Your task to perform on an android device: turn off location history Image 0: 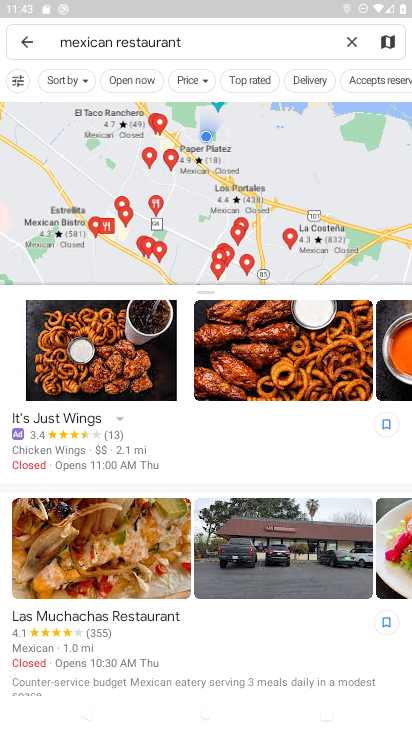
Step 0: press home button
Your task to perform on an android device: turn off location history Image 1: 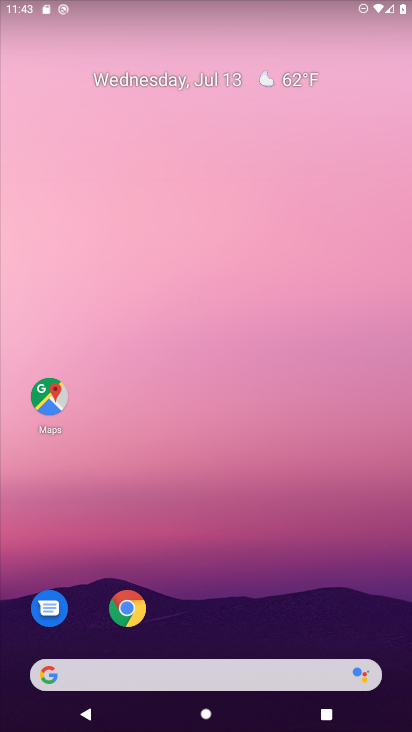
Step 1: drag from (250, 682) to (218, 145)
Your task to perform on an android device: turn off location history Image 2: 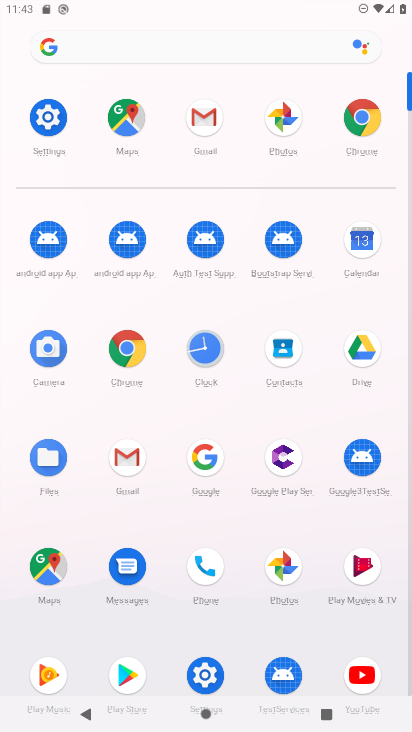
Step 2: click (38, 113)
Your task to perform on an android device: turn off location history Image 3: 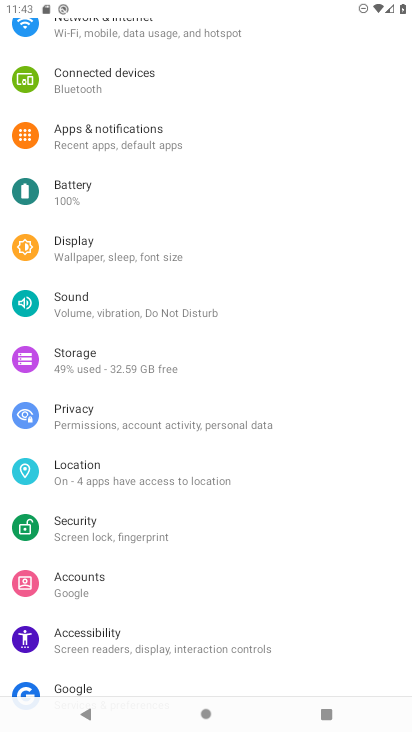
Step 3: click (86, 472)
Your task to perform on an android device: turn off location history Image 4: 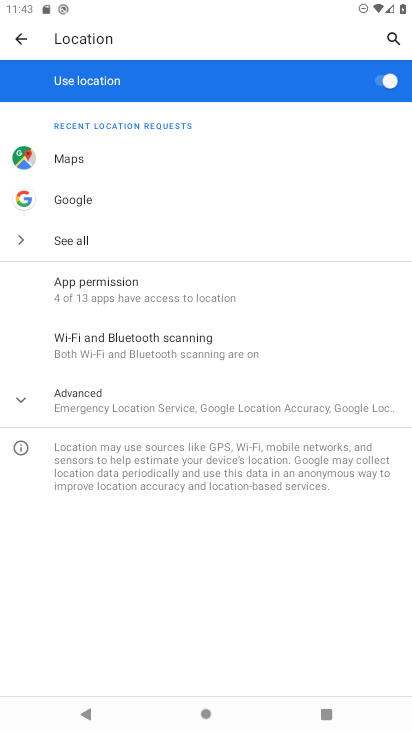
Step 4: click (102, 398)
Your task to perform on an android device: turn off location history Image 5: 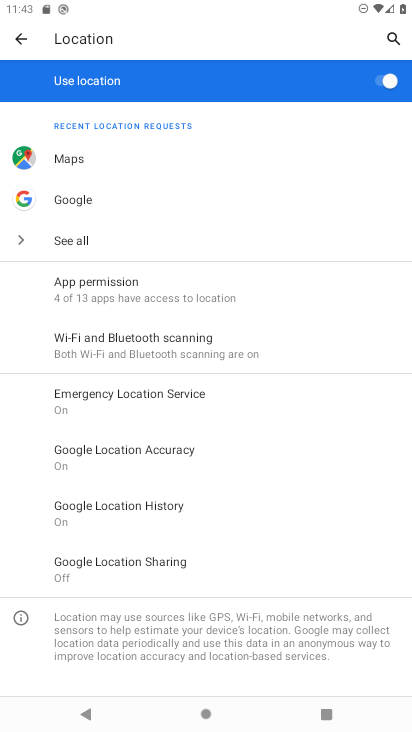
Step 5: click (152, 504)
Your task to perform on an android device: turn off location history Image 6: 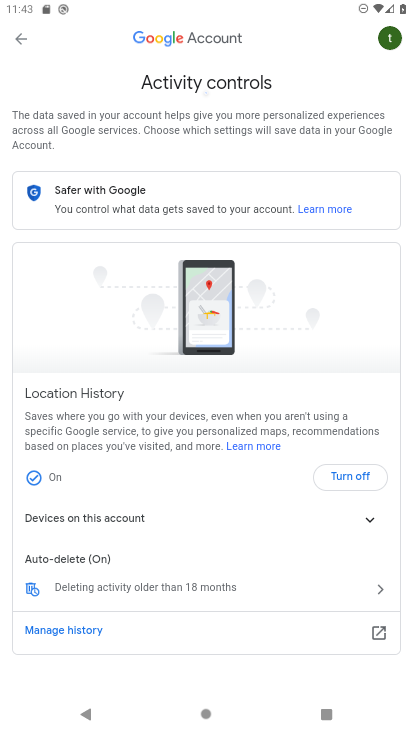
Step 6: click (338, 481)
Your task to perform on an android device: turn off location history Image 7: 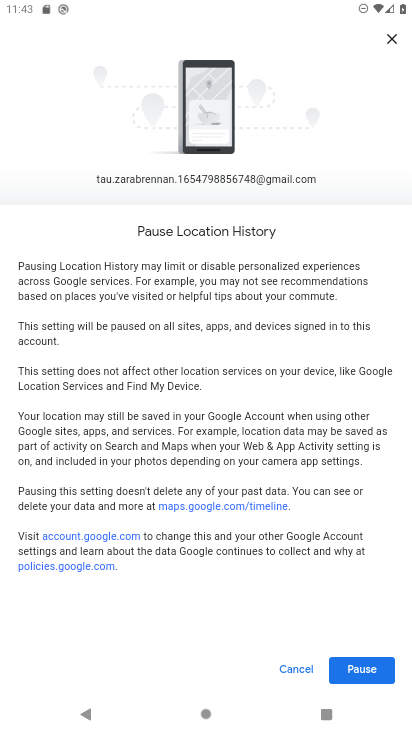
Step 7: click (356, 670)
Your task to perform on an android device: turn off location history Image 8: 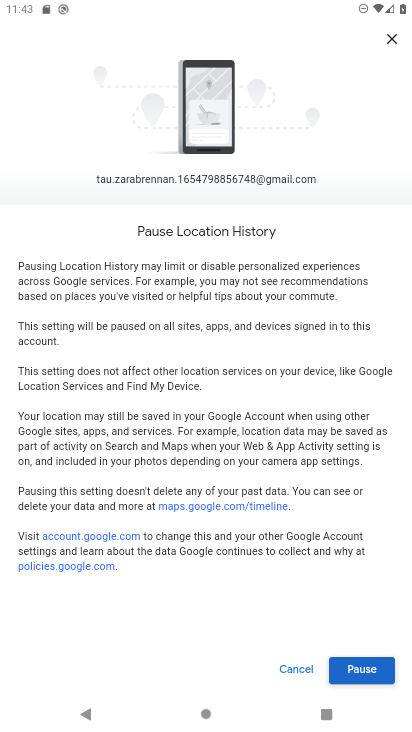
Step 8: click (357, 661)
Your task to perform on an android device: turn off location history Image 9: 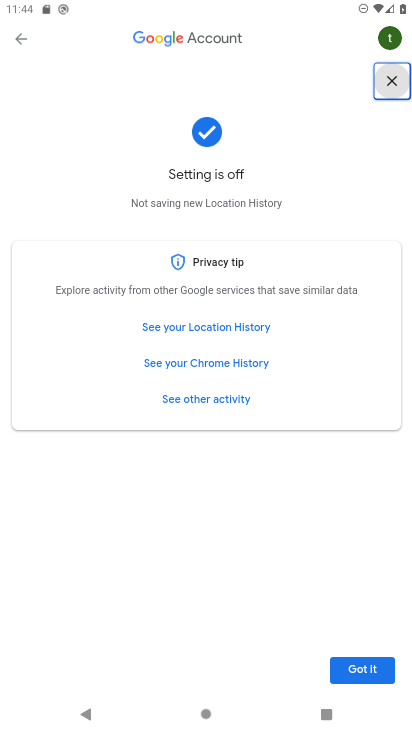
Step 9: click (381, 671)
Your task to perform on an android device: turn off location history Image 10: 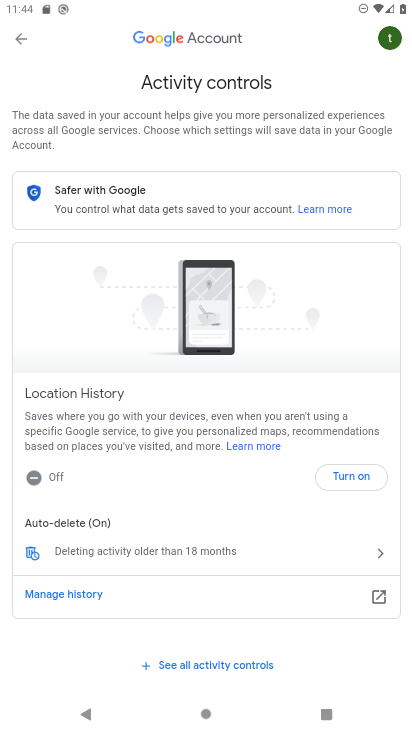
Step 10: task complete